Your task to perform on an android device: Open calendar and show me the fourth week of next month Image 0: 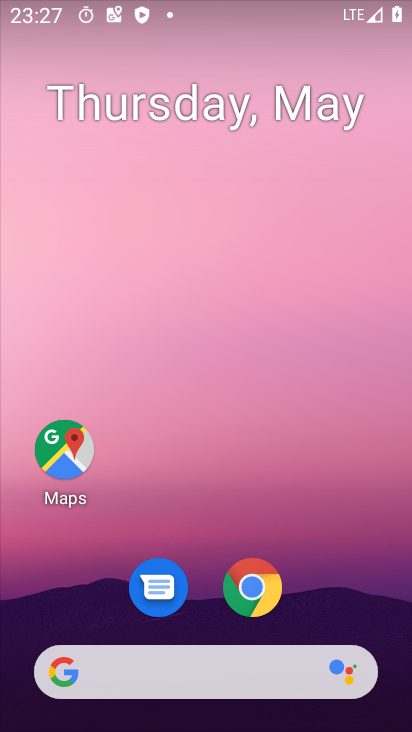
Step 0: drag from (351, 599) to (224, 1)
Your task to perform on an android device: Open calendar and show me the fourth week of next month Image 1: 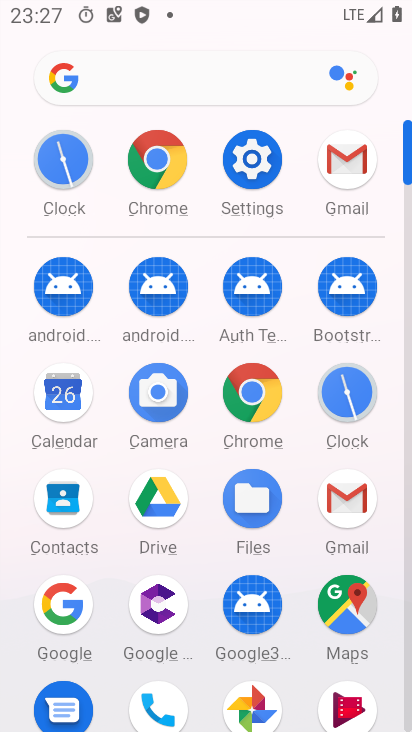
Step 1: click (66, 389)
Your task to perform on an android device: Open calendar and show me the fourth week of next month Image 2: 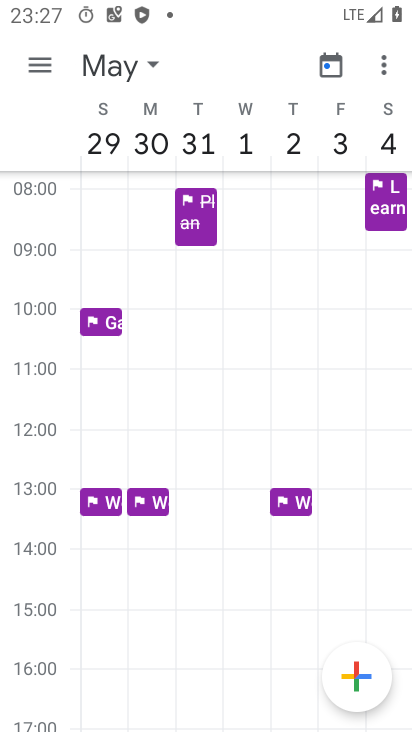
Step 2: click (153, 62)
Your task to perform on an android device: Open calendar and show me the fourth week of next month Image 3: 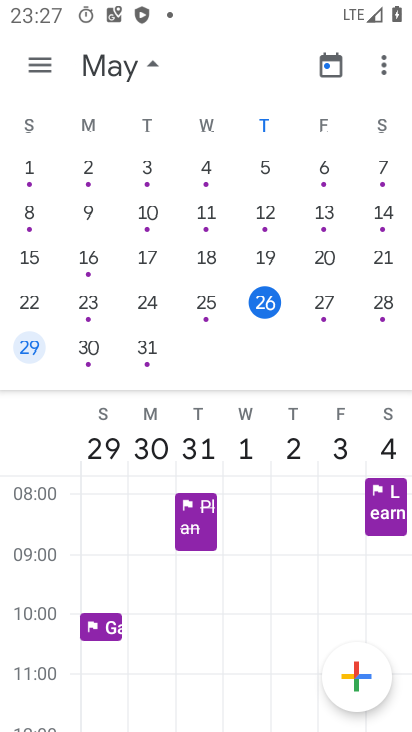
Step 3: task complete